Your task to perform on an android device: Open Amazon Image 0: 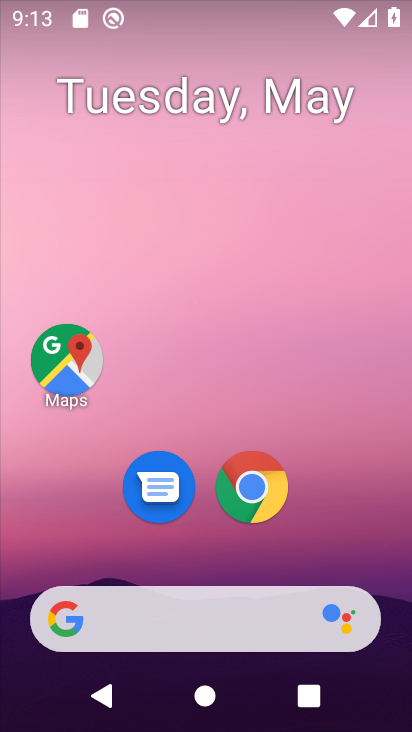
Step 0: press home button
Your task to perform on an android device: Open Amazon Image 1: 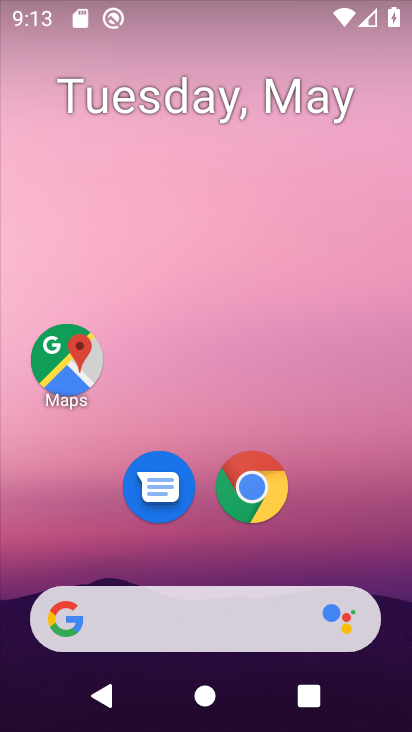
Step 1: click (250, 487)
Your task to perform on an android device: Open Amazon Image 2: 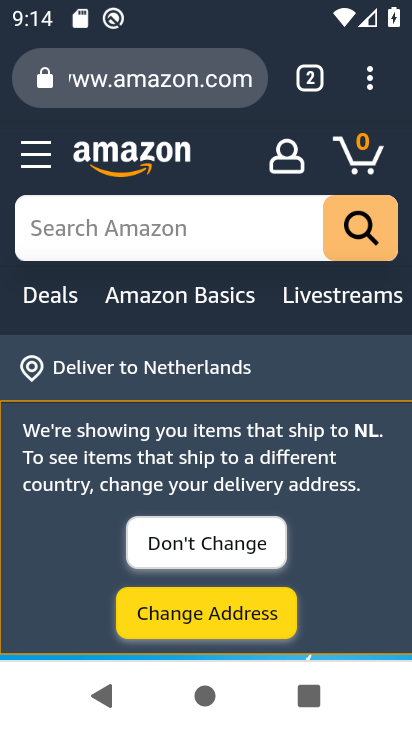
Step 2: drag from (103, 484) to (230, 180)
Your task to perform on an android device: Open Amazon Image 3: 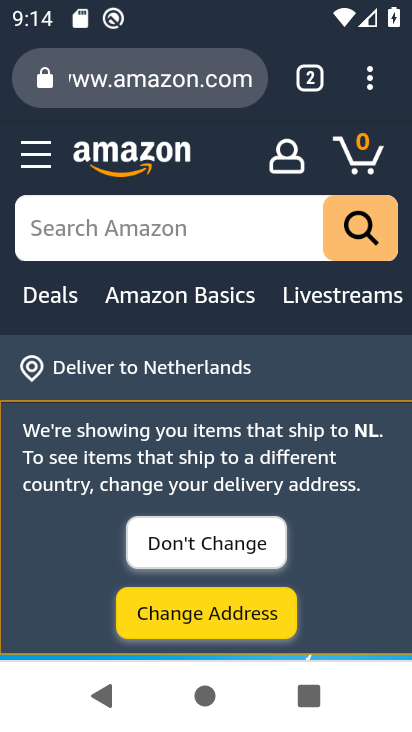
Step 3: click (234, 549)
Your task to perform on an android device: Open Amazon Image 4: 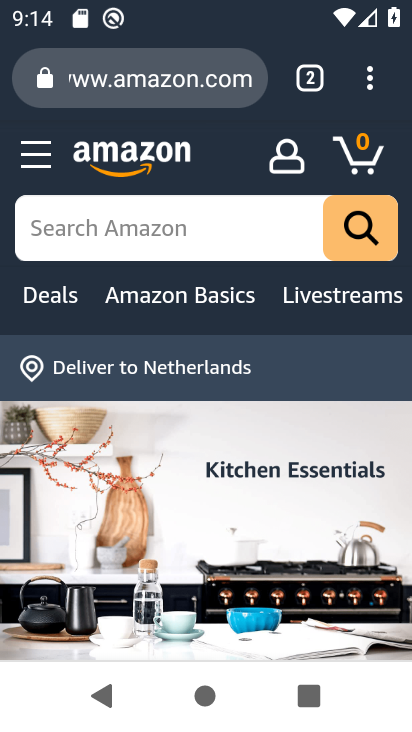
Step 4: task complete